Your task to perform on an android device: create a new album in the google photos Image 0: 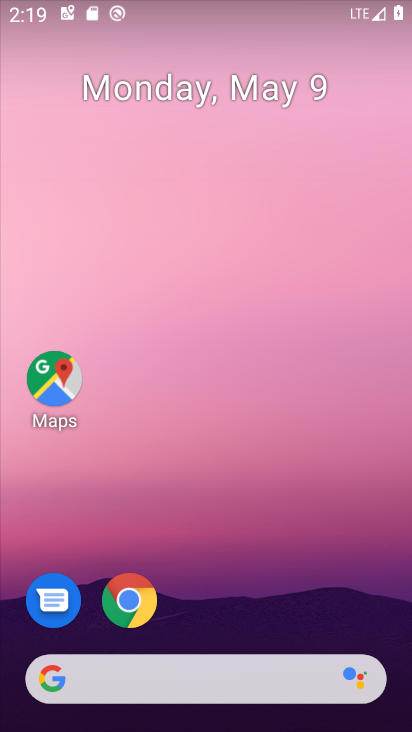
Step 0: drag from (222, 626) to (278, 154)
Your task to perform on an android device: create a new album in the google photos Image 1: 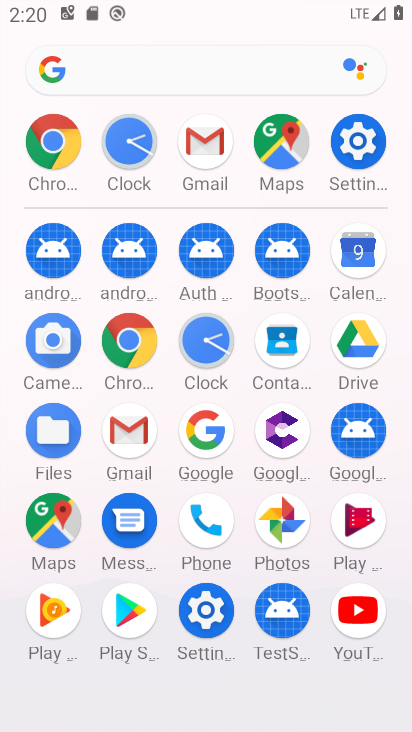
Step 1: click (285, 508)
Your task to perform on an android device: create a new album in the google photos Image 2: 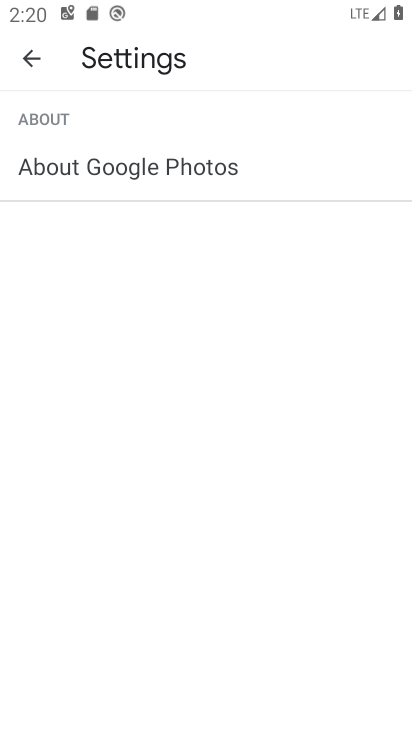
Step 2: click (31, 57)
Your task to perform on an android device: create a new album in the google photos Image 3: 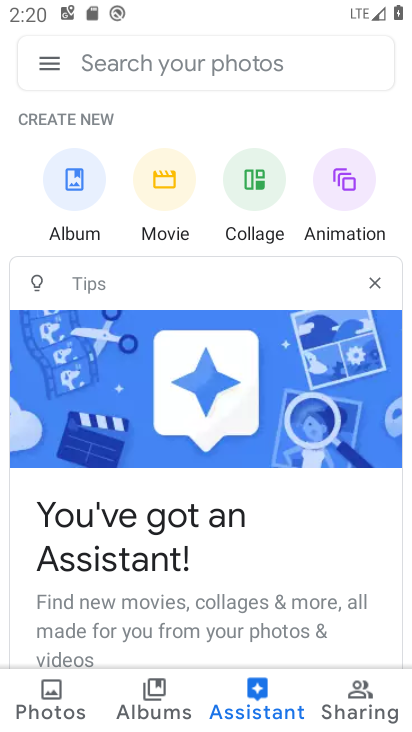
Step 3: click (65, 172)
Your task to perform on an android device: create a new album in the google photos Image 4: 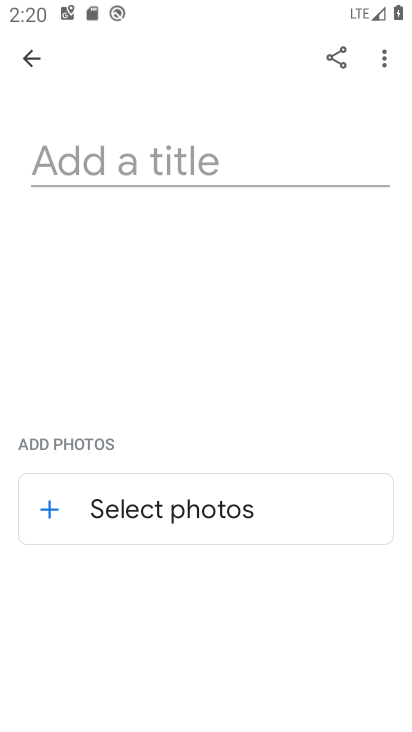
Step 4: click (77, 152)
Your task to perform on an android device: create a new album in the google photos Image 5: 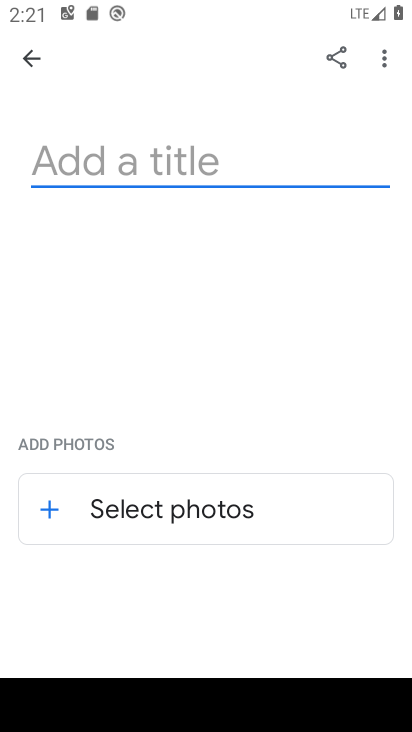
Step 5: type "asdfghjkl"
Your task to perform on an android device: create a new album in the google photos Image 6: 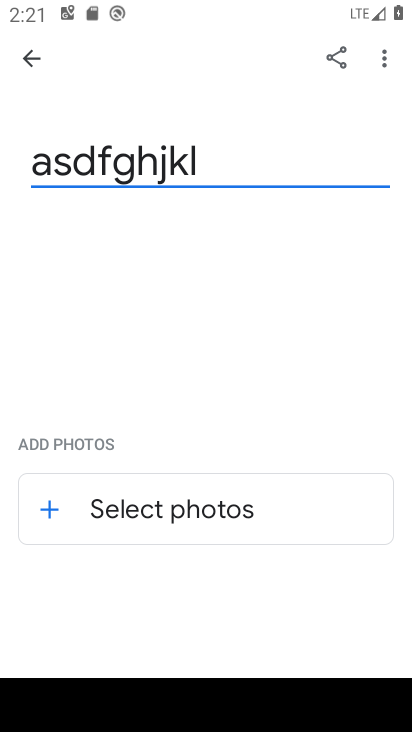
Step 6: click (45, 517)
Your task to perform on an android device: create a new album in the google photos Image 7: 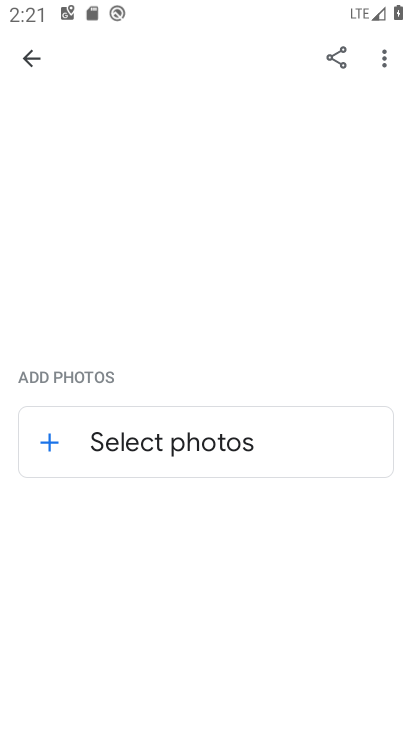
Step 7: click (164, 444)
Your task to perform on an android device: create a new album in the google photos Image 8: 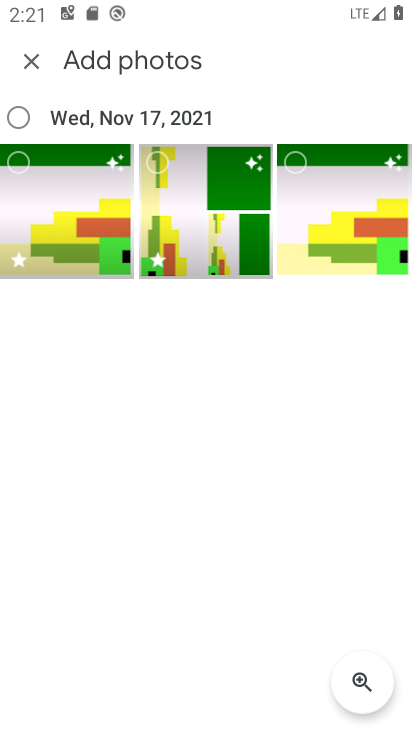
Step 8: click (71, 212)
Your task to perform on an android device: create a new album in the google photos Image 9: 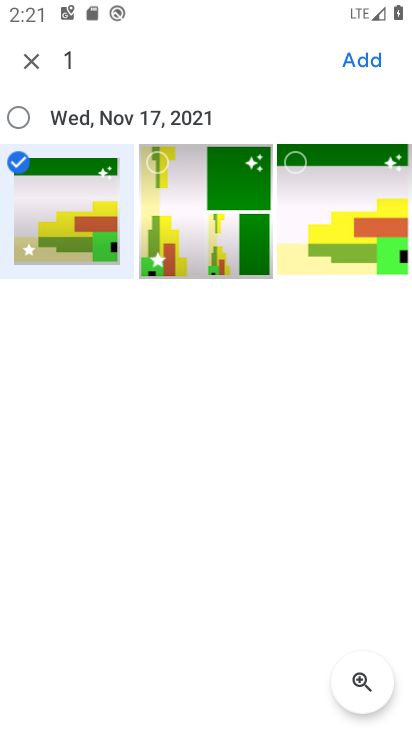
Step 9: click (380, 54)
Your task to perform on an android device: create a new album in the google photos Image 10: 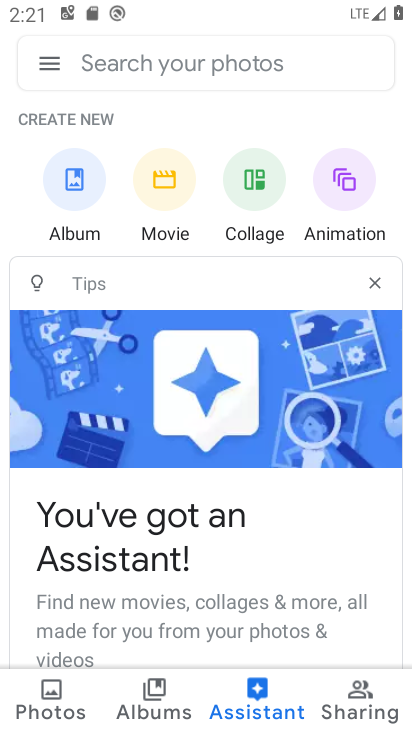
Step 10: task complete